Your task to perform on an android device: toggle priority inbox in the gmail app Image 0: 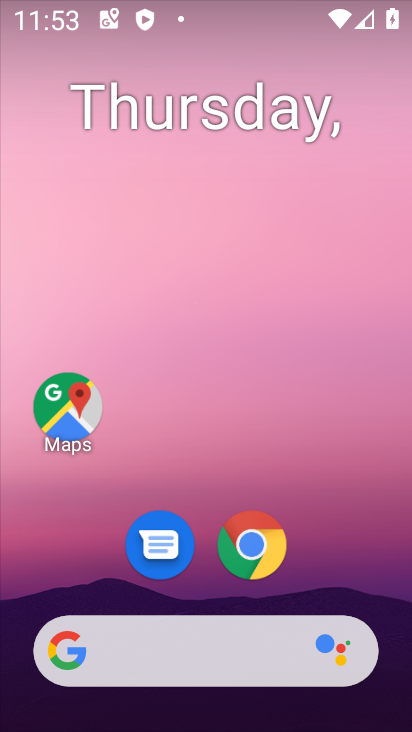
Step 0: drag from (314, 580) to (292, 271)
Your task to perform on an android device: toggle priority inbox in the gmail app Image 1: 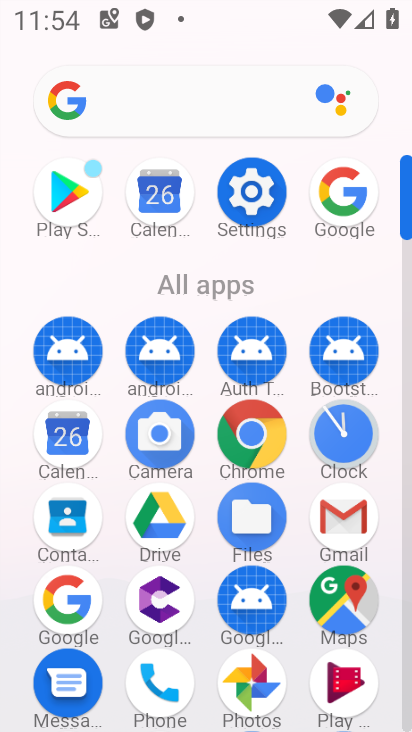
Step 1: click (330, 508)
Your task to perform on an android device: toggle priority inbox in the gmail app Image 2: 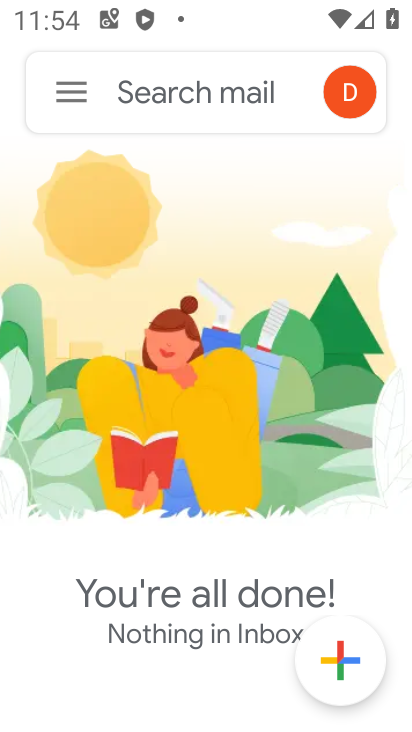
Step 2: click (77, 92)
Your task to perform on an android device: toggle priority inbox in the gmail app Image 3: 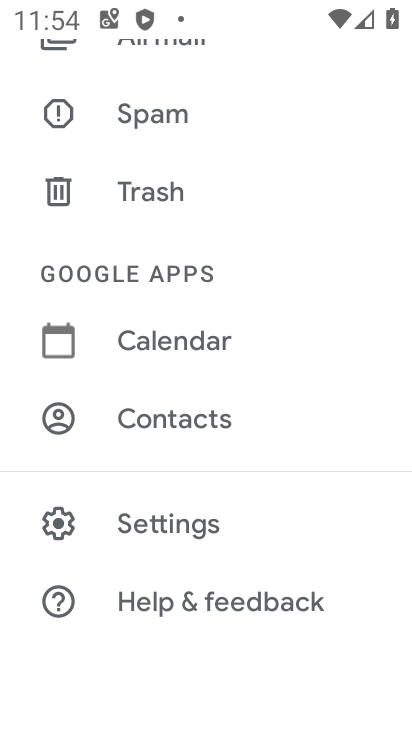
Step 3: click (176, 539)
Your task to perform on an android device: toggle priority inbox in the gmail app Image 4: 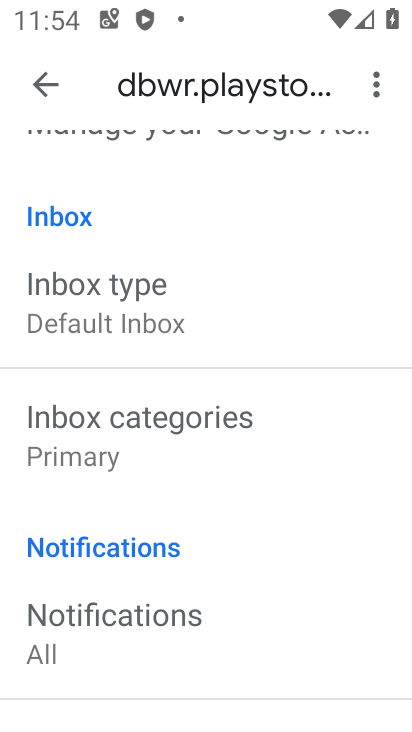
Step 4: click (195, 318)
Your task to perform on an android device: toggle priority inbox in the gmail app Image 5: 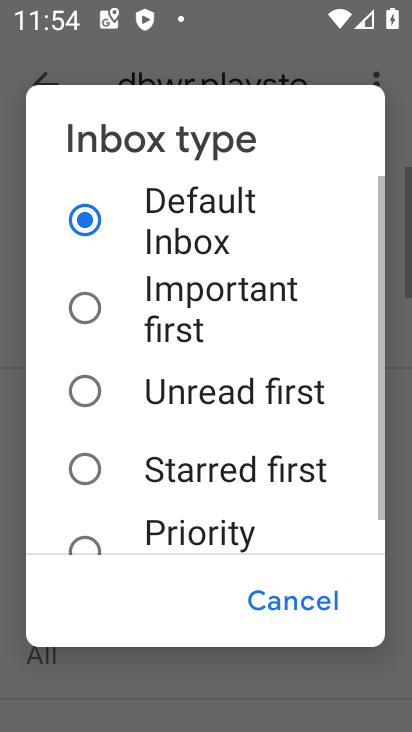
Step 5: click (203, 525)
Your task to perform on an android device: toggle priority inbox in the gmail app Image 6: 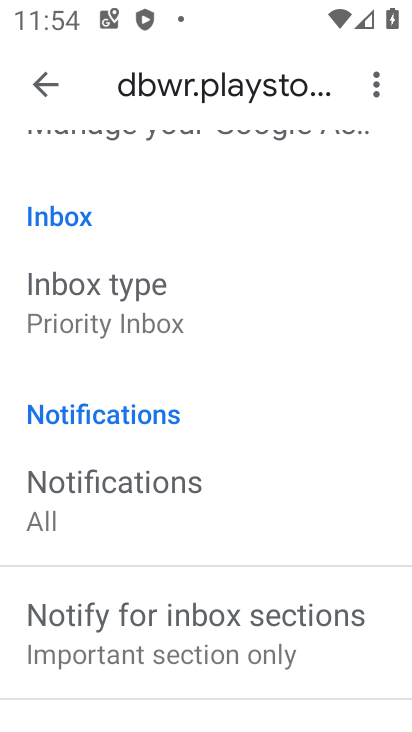
Step 6: task complete